Your task to perform on an android device: Go to settings Image 0: 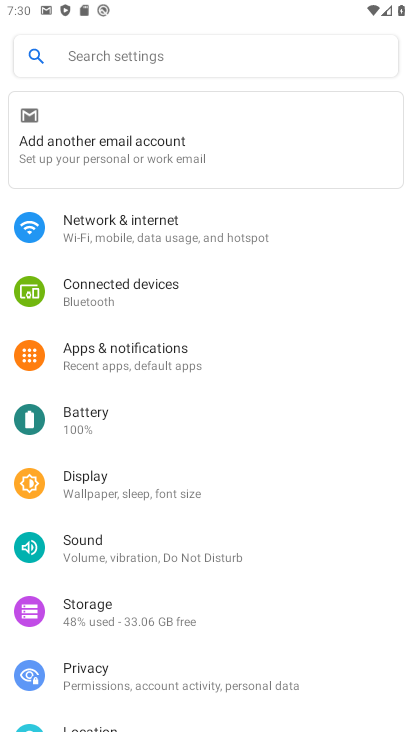
Step 0: drag from (204, 625) to (308, 130)
Your task to perform on an android device: Go to settings Image 1: 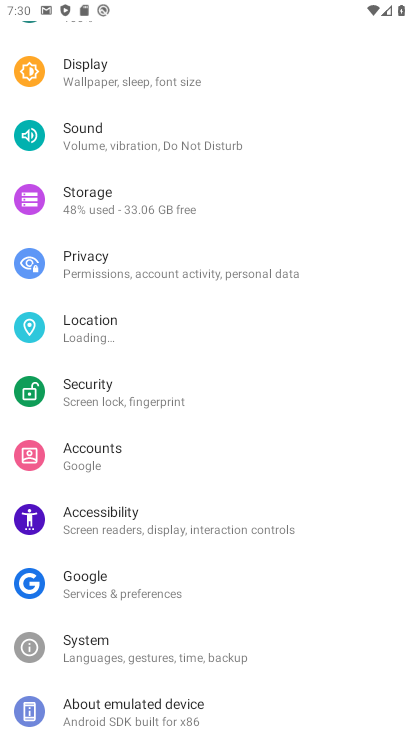
Step 1: task complete